Your task to perform on an android device: see tabs open on other devices in the chrome app Image 0: 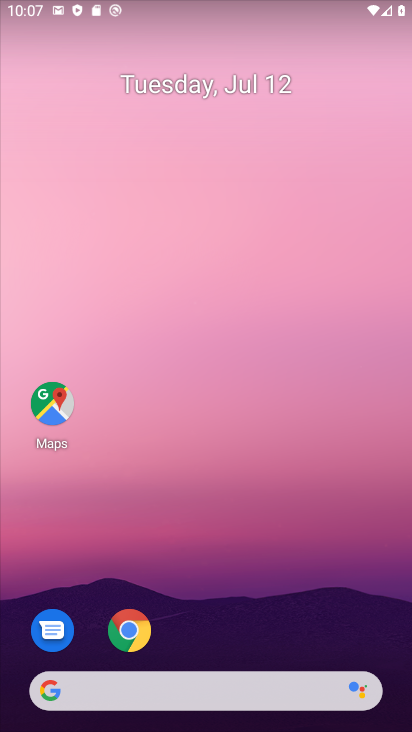
Step 0: drag from (358, 606) to (356, 140)
Your task to perform on an android device: see tabs open on other devices in the chrome app Image 1: 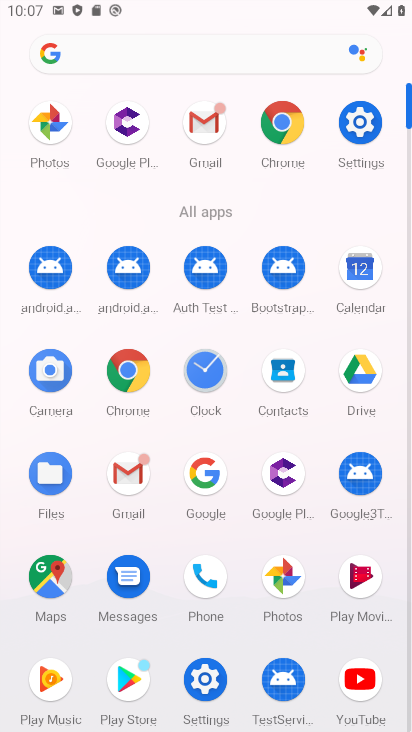
Step 1: click (124, 369)
Your task to perform on an android device: see tabs open on other devices in the chrome app Image 2: 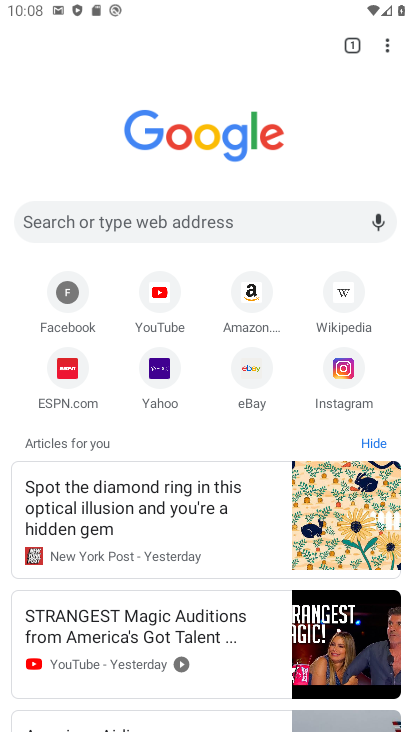
Step 2: click (384, 47)
Your task to perform on an android device: see tabs open on other devices in the chrome app Image 3: 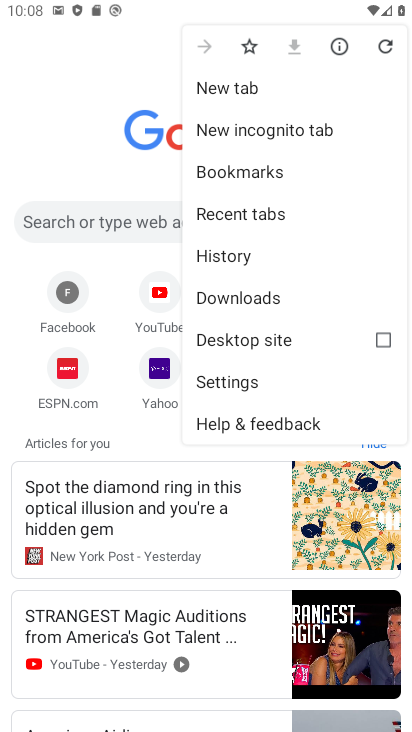
Step 3: click (264, 213)
Your task to perform on an android device: see tabs open on other devices in the chrome app Image 4: 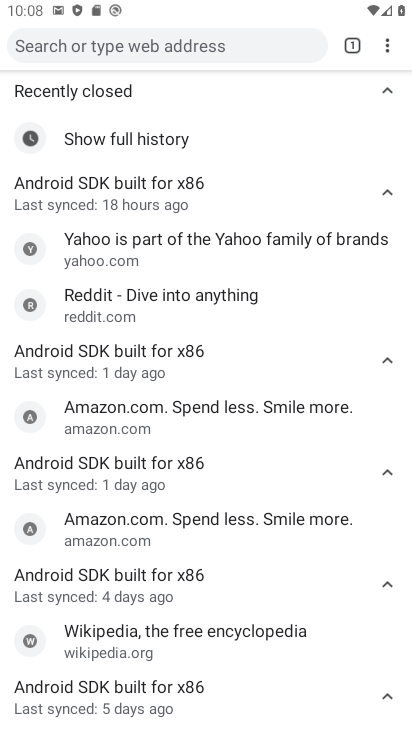
Step 4: click (355, 38)
Your task to perform on an android device: see tabs open on other devices in the chrome app Image 5: 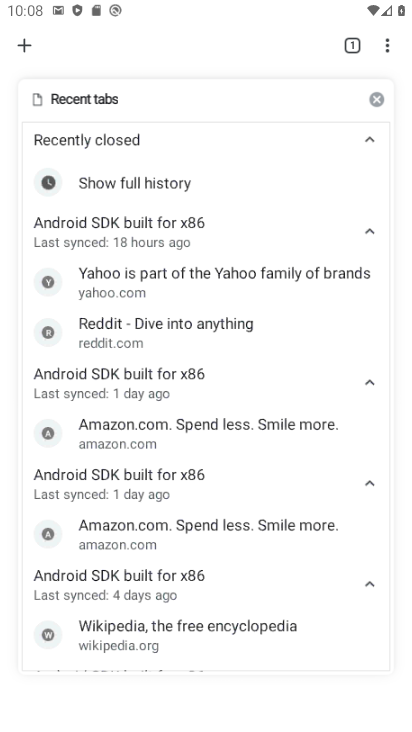
Step 5: task complete